Your task to perform on an android device: change the clock display to show seconds Image 0: 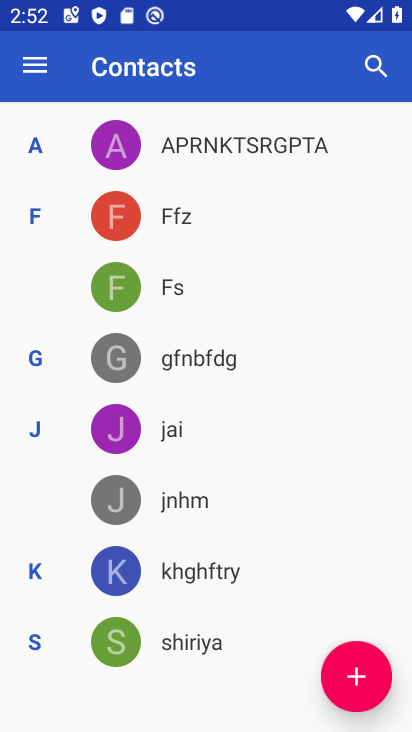
Step 0: press home button
Your task to perform on an android device: change the clock display to show seconds Image 1: 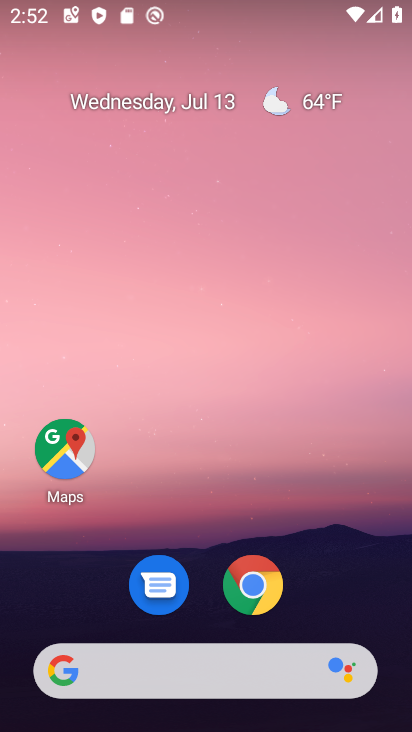
Step 1: drag from (179, 682) to (303, 170)
Your task to perform on an android device: change the clock display to show seconds Image 2: 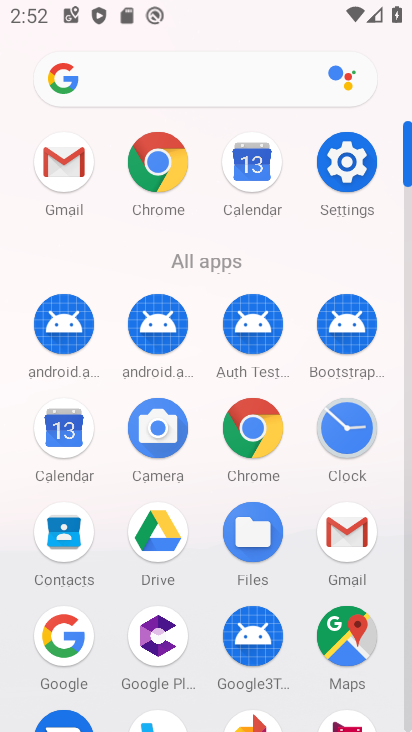
Step 2: click (341, 419)
Your task to perform on an android device: change the clock display to show seconds Image 3: 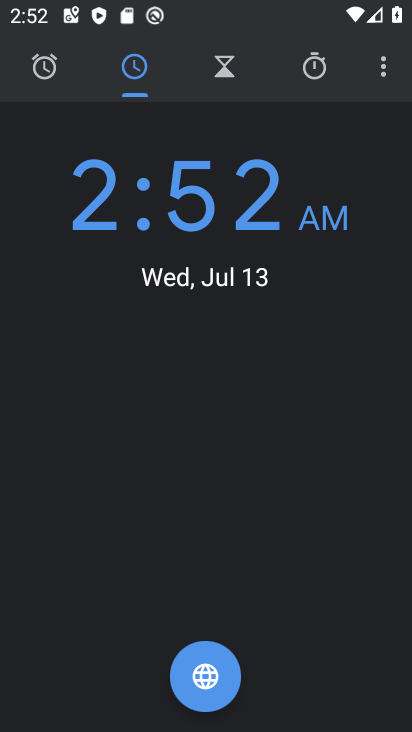
Step 3: click (380, 68)
Your task to perform on an android device: change the clock display to show seconds Image 4: 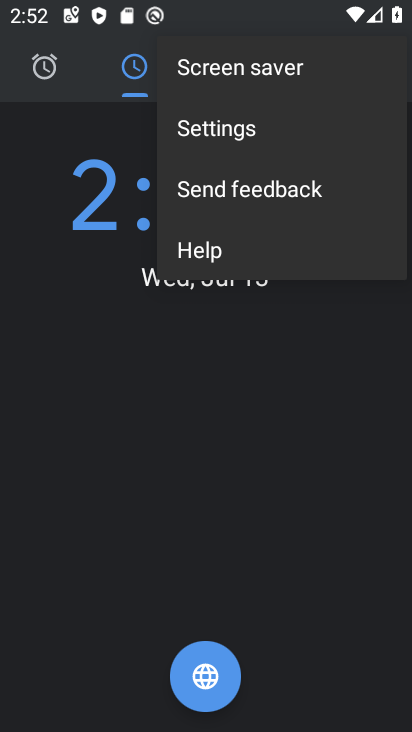
Step 4: click (238, 136)
Your task to perform on an android device: change the clock display to show seconds Image 5: 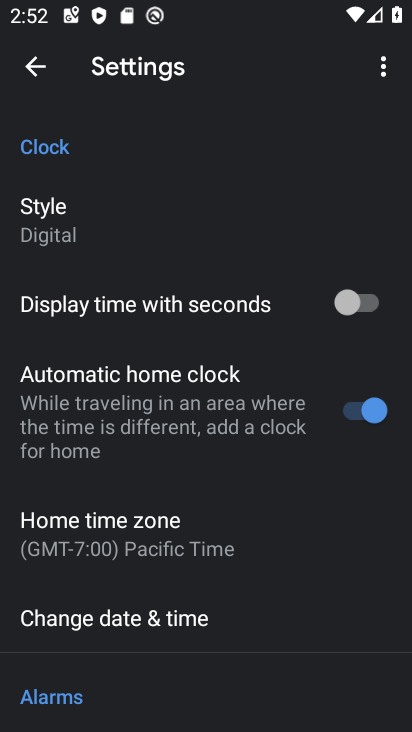
Step 5: click (375, 305)
Your task to perform on an android device: change the clock display to show seconds Image 6: 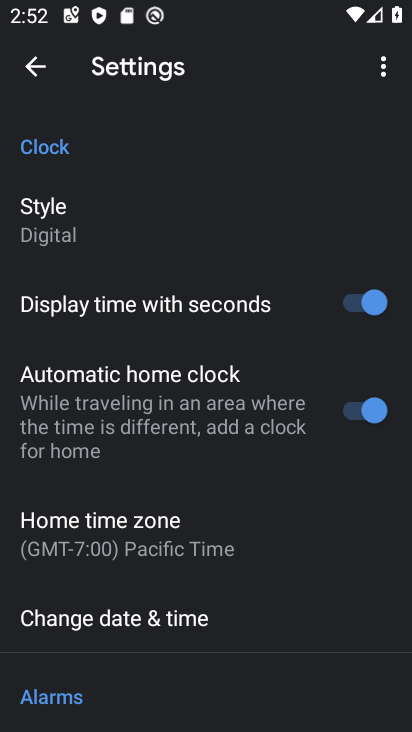
Step 6: task complete